Your task to perform on an android device: See recent photos Image 0: 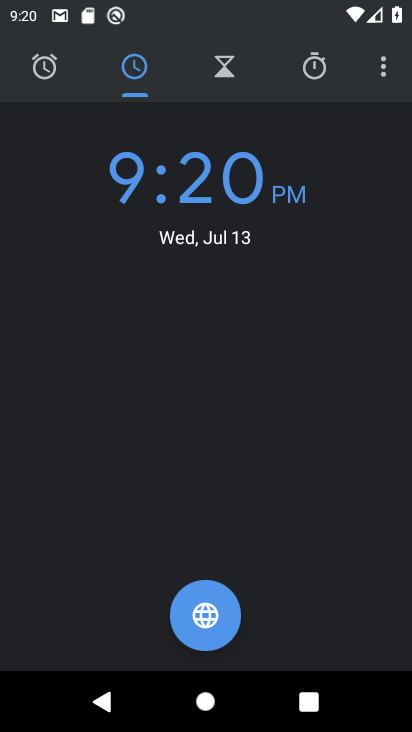
Step 0: press home button
Your task to perform on an android device: See recent photos Image 1: 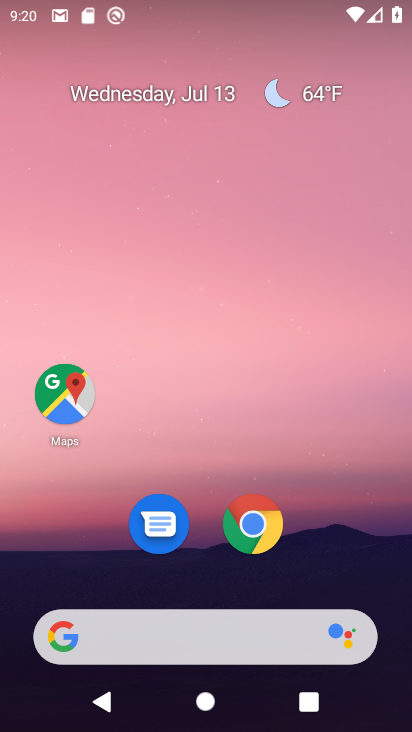
Step 1: drag from (176, 609) to (172, 32)
Your task to perform on an android device: See recent photos Image 2: 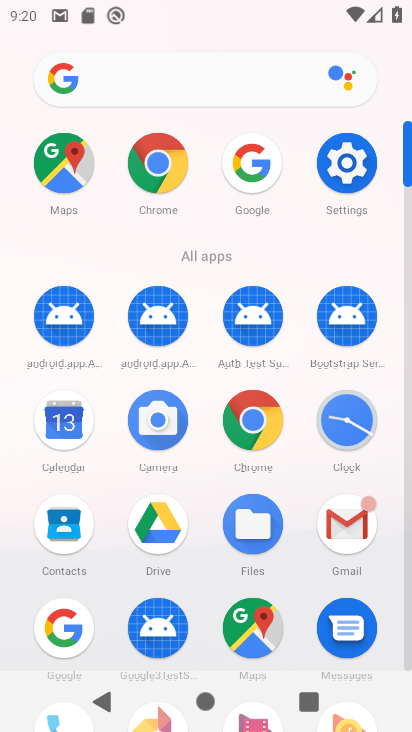
Step 2: drag from (200, 569) to (162, 109)
Your task to perform on an android device: See recent photos Image 3: 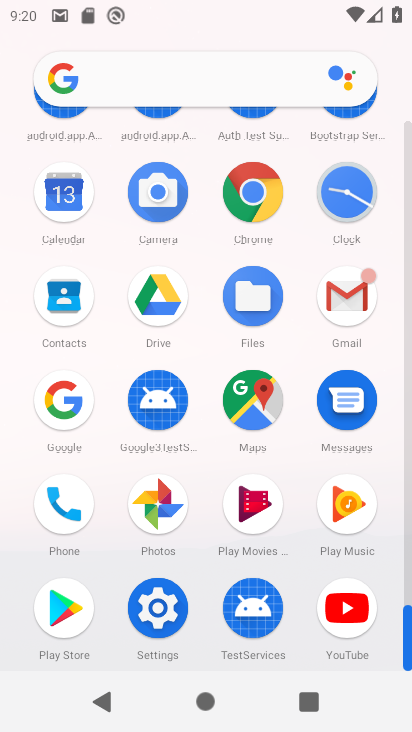
Step 3: click (146, 497)
Your task to perform on an android device: See recent photos Image 4: 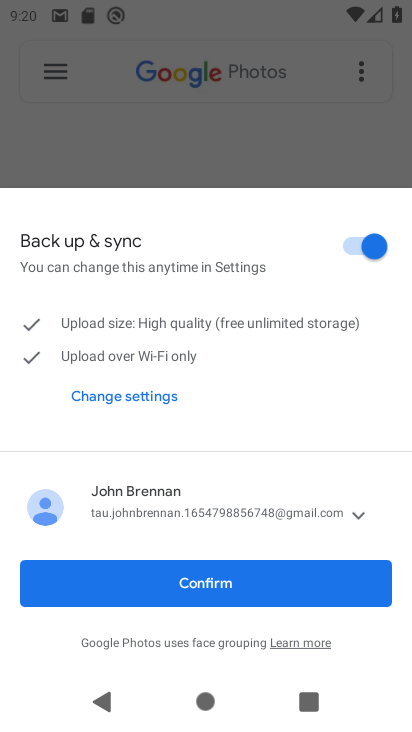
Step 4: click (204, 574)
Your task to perform on an android device: See recent photos Image 5: 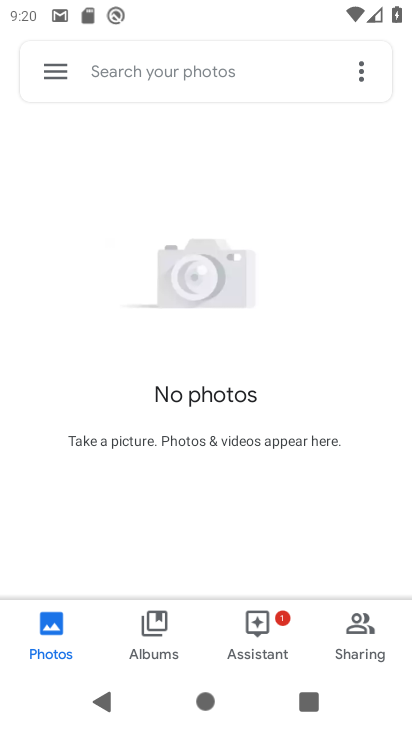
Step 5: task complete